Your task to perform on an android device: check data usage Image 0: 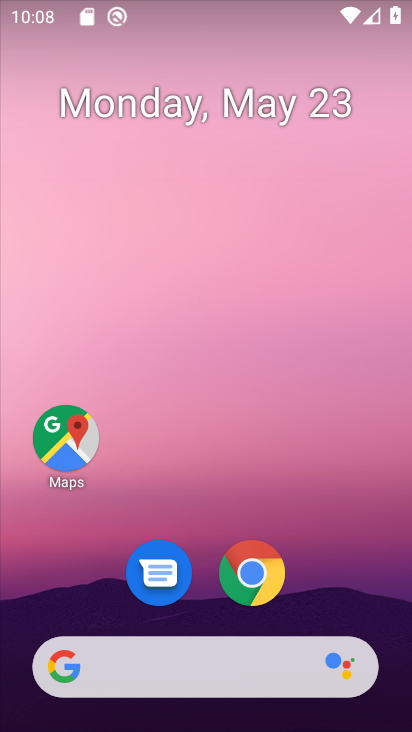
Step 0: drag from (326, 585) to (242, 30)
Your task to perform on an android device: check data usage Image 1: 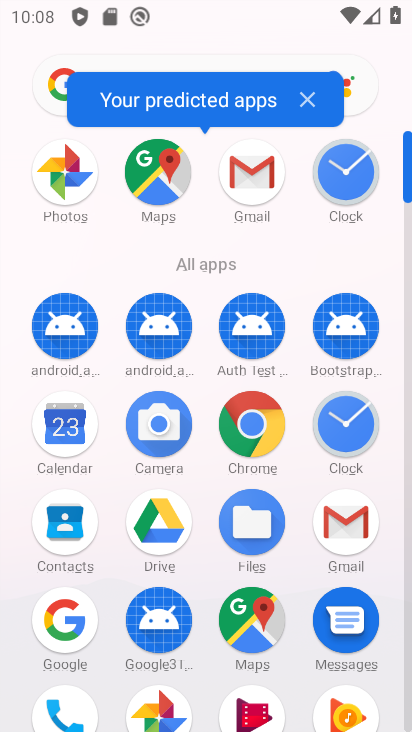
Step 1: drag from (4, 578) to (31, 166)
Your task to perform on an android device: check data usage Image 2: 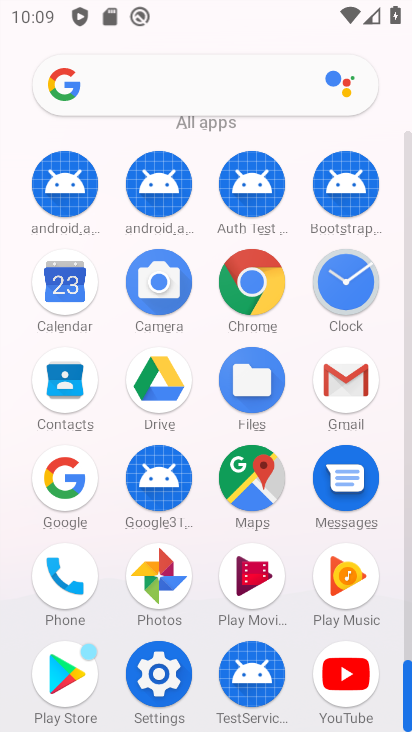
Step 2: drag from (18, 613) to (22, 302)
Your task to perform on an android device: check data usage Image 3: 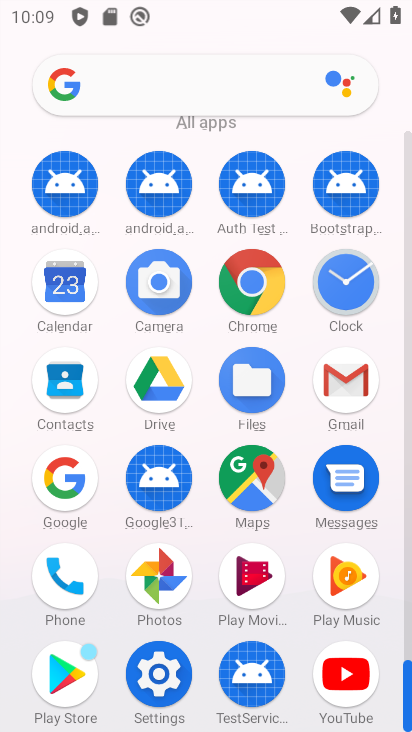
Step 3: click (161, 674)
Your task to perform on an android device: check data usage Image 4: 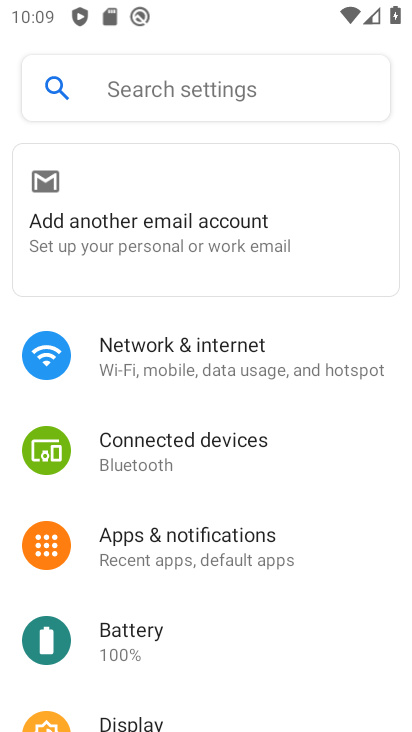
Step 4: drag from (232, 554) to (233, 134)
Your task to perform on an android device: check data usage Image 5: 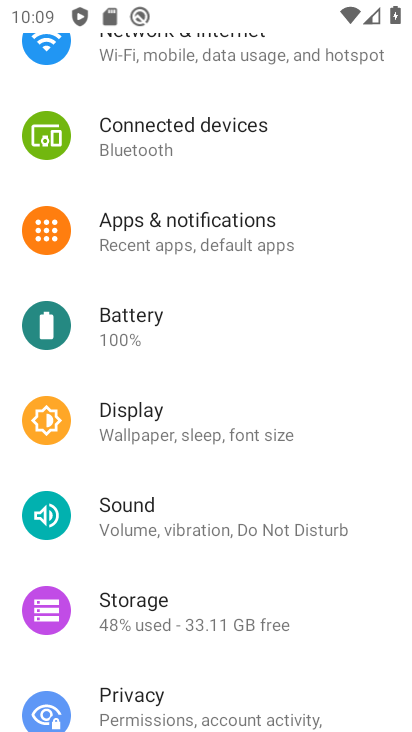
Step 5: drag from (178, 89) to (174, 329)
Your task to perform on an android device: check data usage Image 6: 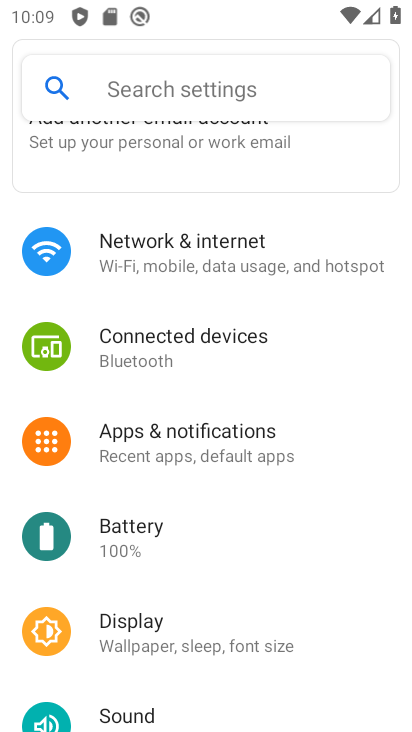
Step 6: click (201, 242)
Your task to perform on an android device: check data usage Image 7: 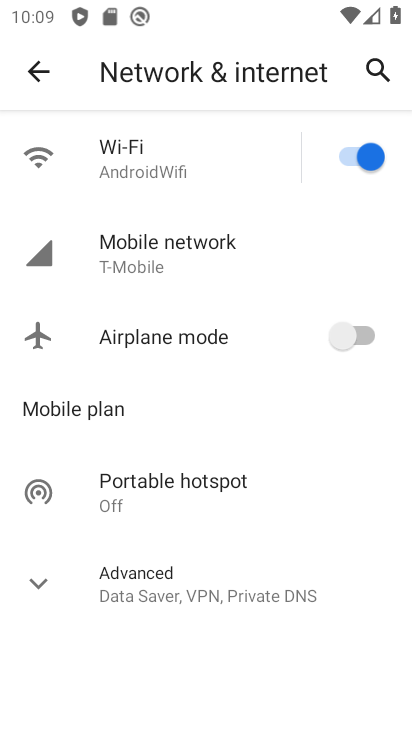
Step 7: click (201, 242)
Your task to perform on an android device: check data usage Image 8: 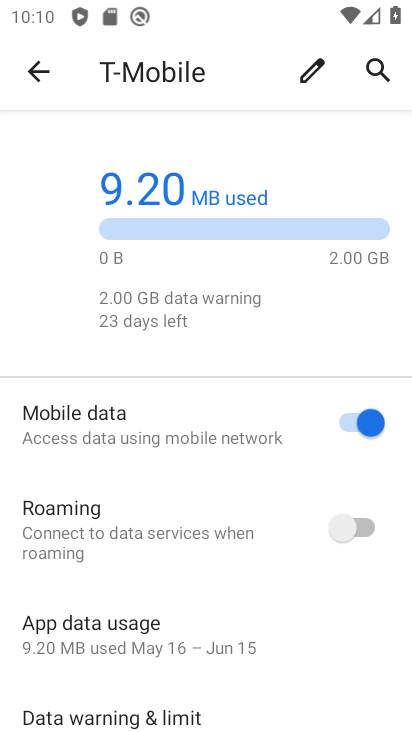
Step 8: task complete